Your task to perform on an android device: stop showing notifications on the lock screen Image 0: 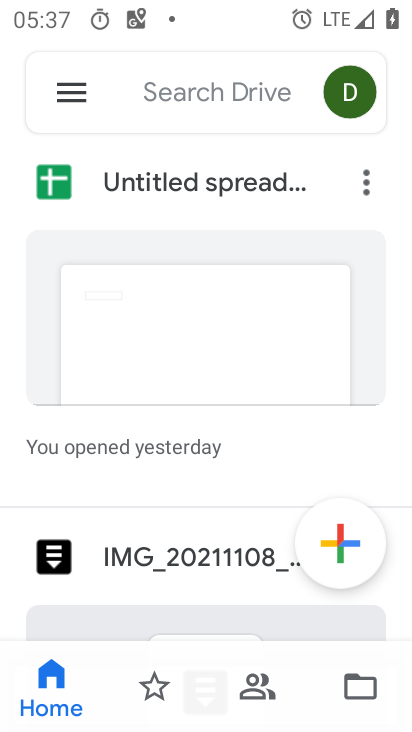
Step 0: press home button
Your task to perform on an android device: stop showing notifications on the lock screen Image 1: 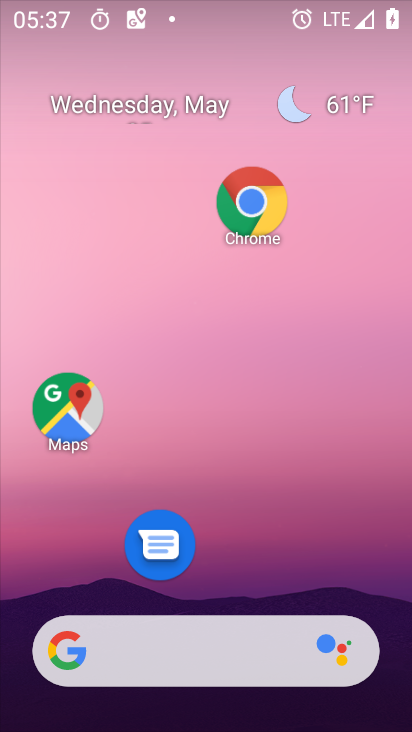
Step 1: drag from (241, 614) to (228, 280)
Your task to perform on an android device: stop showing notifications on the lock screen Image 2: 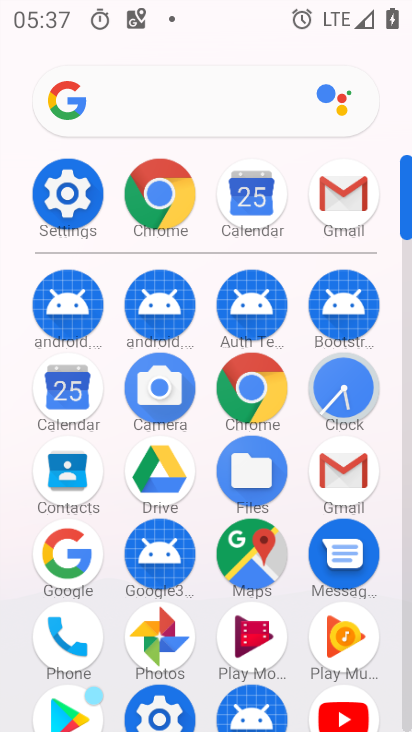
Step 2: click (57, 200)
Your task to perform on an android device: stop showing notifications on the lock screen Image 3: 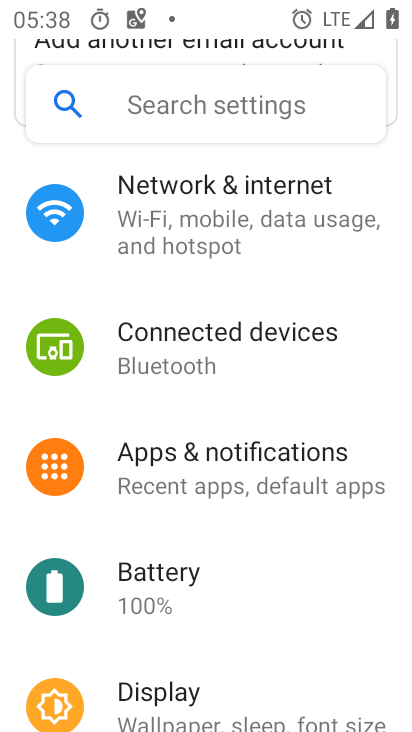
Step 3: drag from (220, 661) to (206, 320)
Your task to perform on an android device: stop showing notifications on the lock screen Image 4: 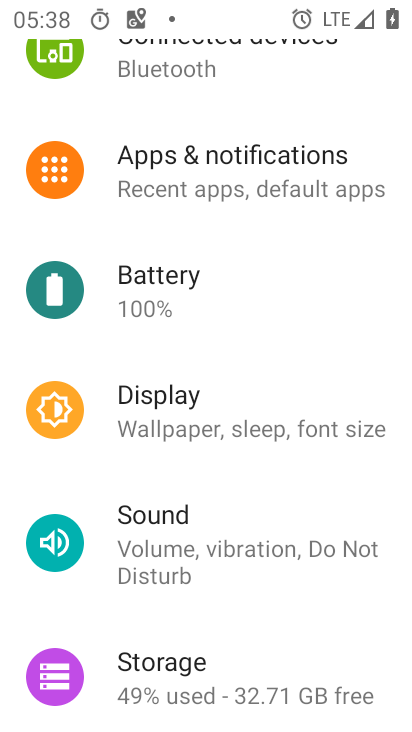
Step 4: drag from (201, 661) to (198, 393)
Your task to perform on an android device: stop showing notifications on the lock screen Image 5: 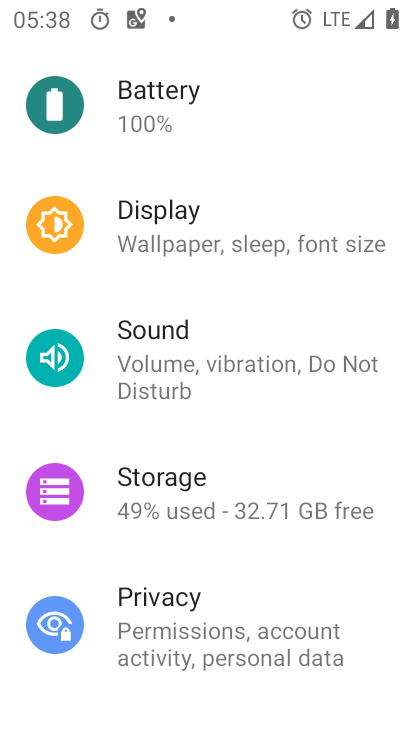
Step 5: click (209, 632)
Your task to perform on an android device: stop showing notifications on the lock screen Image 6: 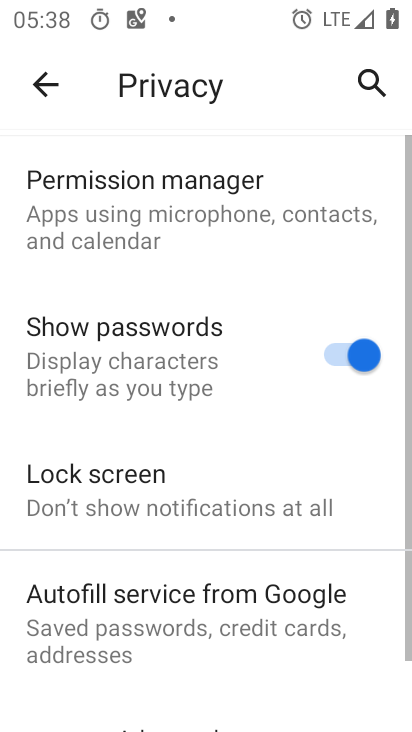
Step 6: click (157, 492)
Your task to perform on an android device: stop showing notifications on the lock screen Image 7: 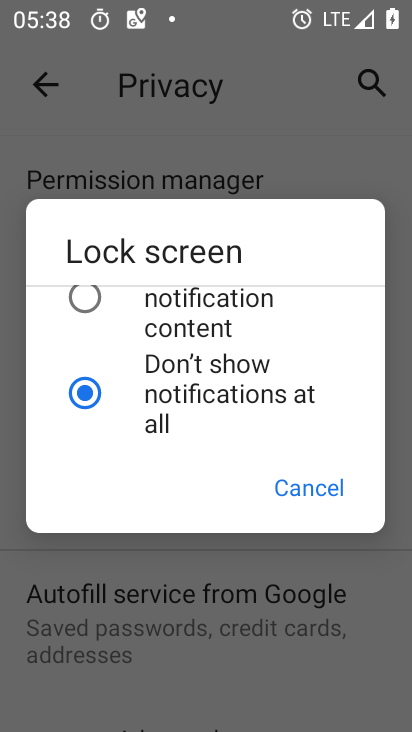
Step 7: task complete